Your task to perform on an android device: toggle priority inbox in the gmail app Image 0: 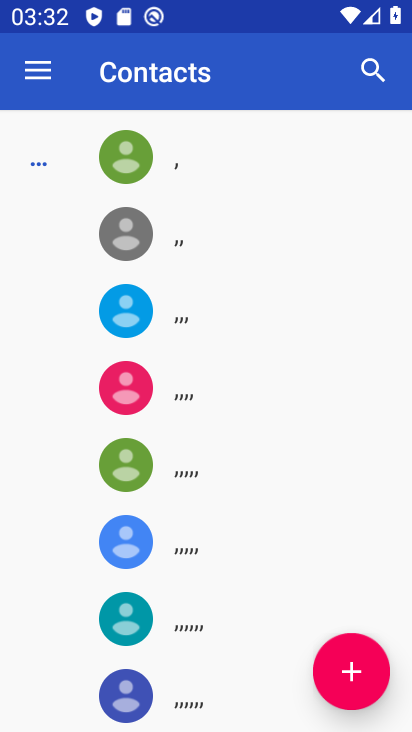
Step 0: press home button
Your task to perform on an android device: toggle priority inbox in the gmail app Image 1: 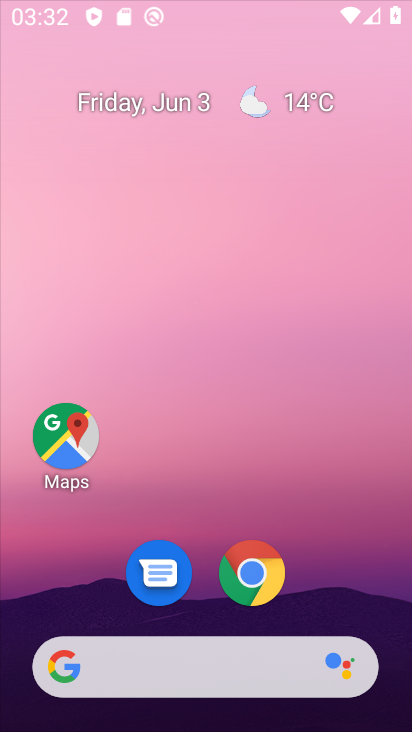
Step 1: drag from (293, 693) to (407, 9)
Your task to perform on an android device: toggle priority inbox in the gmail app Image 2: 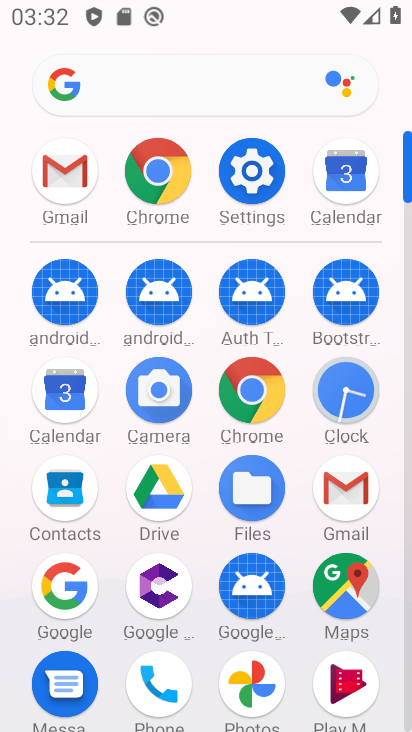
Step 2: click (346, 490)
Your task to perform on an android device: toggle priority inbox in the gmail app Image 3: 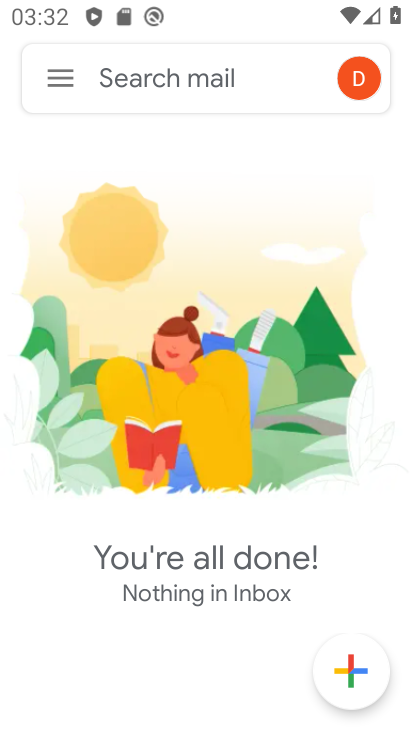
Step 3: click (67, 77)
Your task to perform on an android device: toggle priority inbox in the gmail app Image 4: 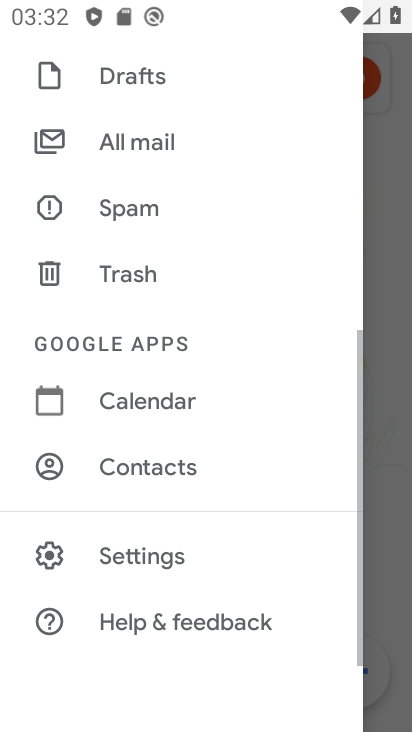
Step 4: click (191, 555)
Your task to perform on an android device: toggle priority inbox in the gmail app Image 5: 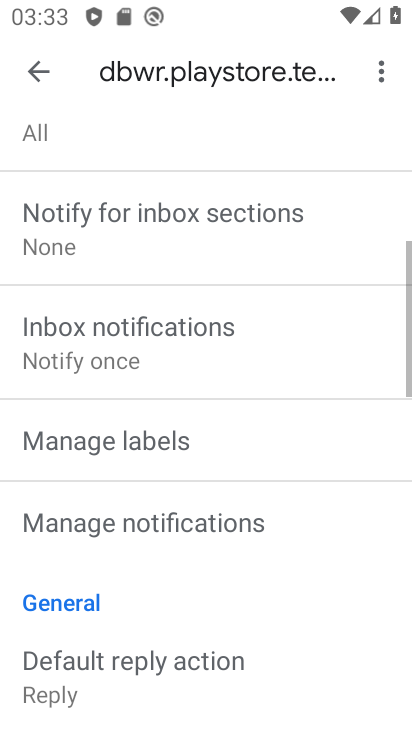
Step 5: drag from (149, 235) to (169, 651)
Your task to perform on an android device: toggle priority inbox in the gmail app Image 6: 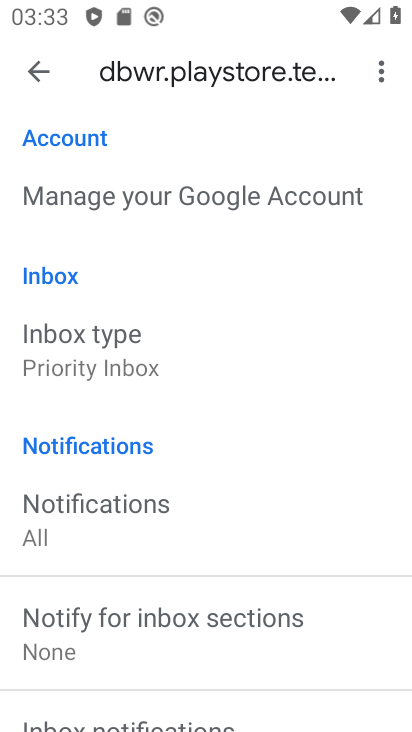
Step 6: click (132, 335)
Your task to perform on an android device: toggle priority inbox in the gmail app Image 7: 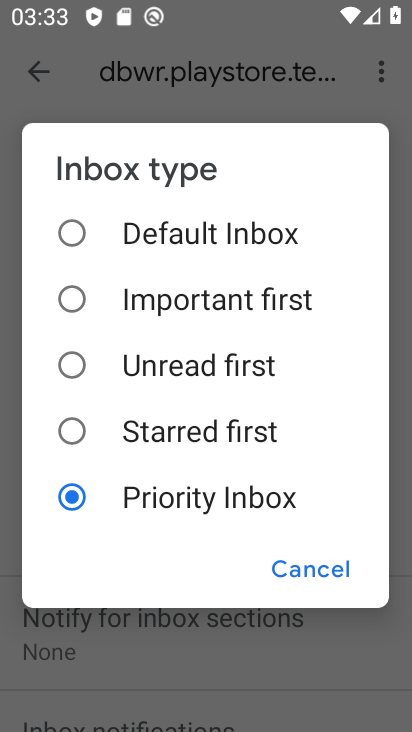
Step 7: click (68, 236)
Your task to perform on an android device: toggle priority inbox in the gmail app Image 8: 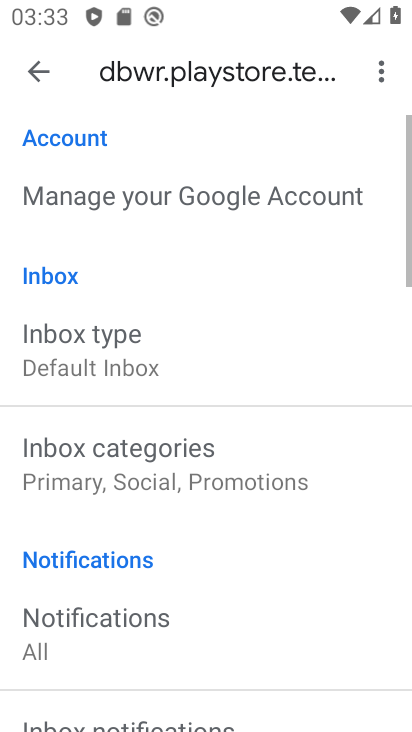
Step 8: task complete